Your task to perform on an android device: add a contact in the contacts app Image 0: 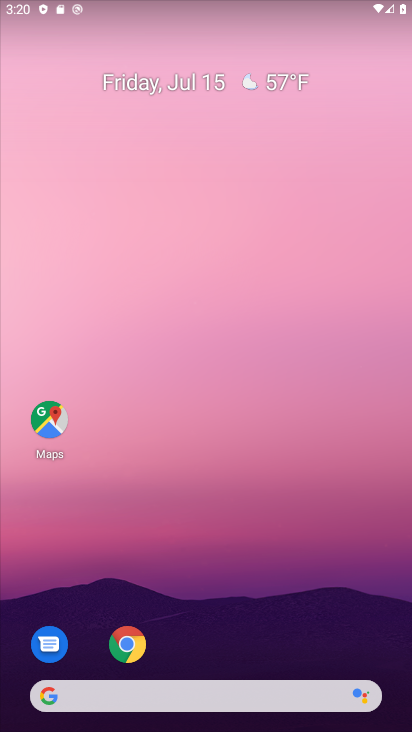
Step 0: drag from (193, 655) to (317, 190)
Your task to perform on an android device: add a contact in the contacts app Image 1: 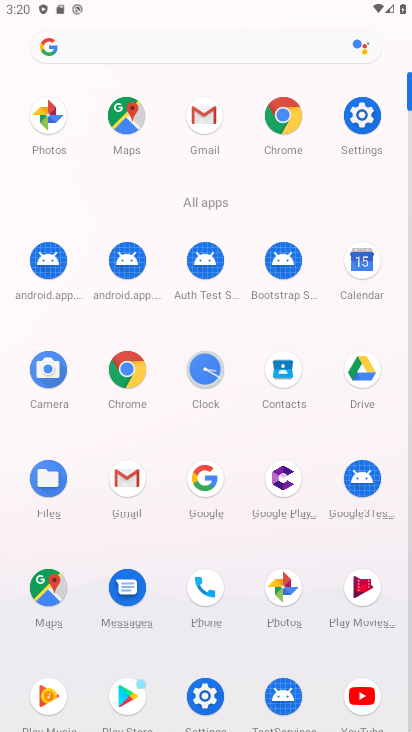
Step 1: click (278, 382)
Your task to perform on an android device: add a contact in the contacts app Image 2: 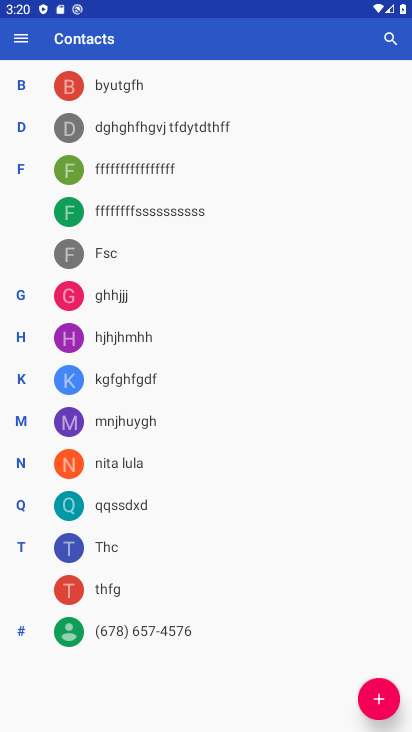
Step 2: click (372, 701)
Your task to perform on an android device: add a contact in the contacts app Image 3: 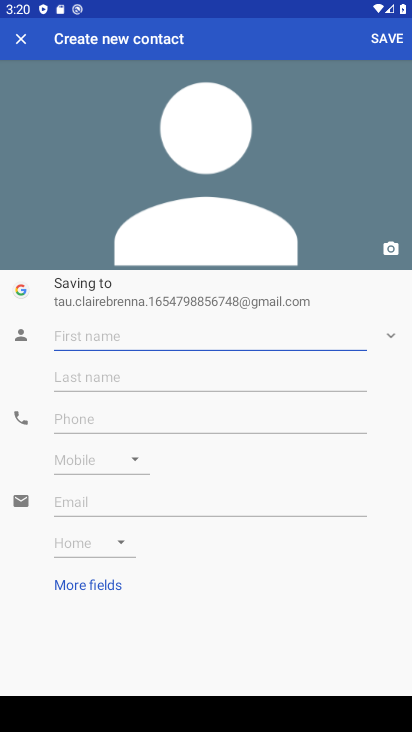
Step 3: type "ED"
Your task to perform on an android device: add a contact in the contacts app Image 4: 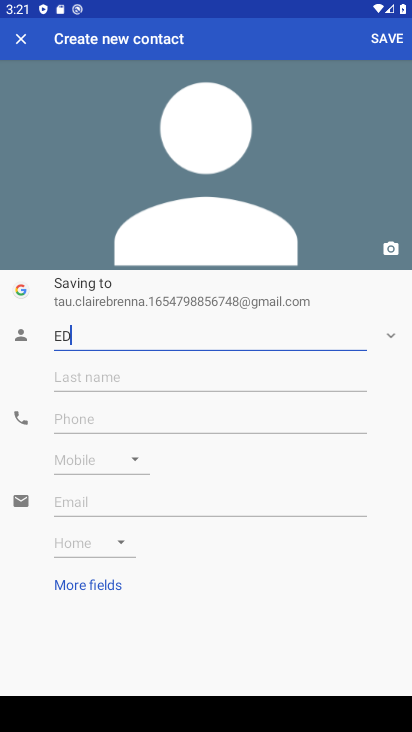
Step 4: click (96, 423)
Your task to perform on an android device: add a contact in the contacts app Image 5: 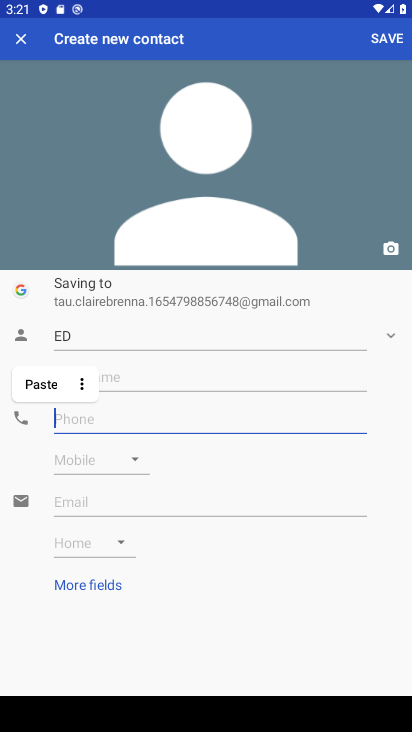
Step 5: type "5656565667"
Your task to perform on an android device: add a contact in the contacts app Image 6: 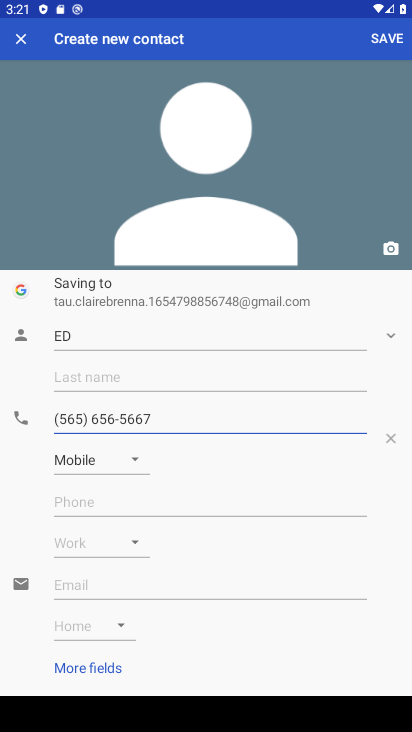
Step 6: click (379, 39)
Your task to perform on an android device: add a contact in the contacts app Image 7: 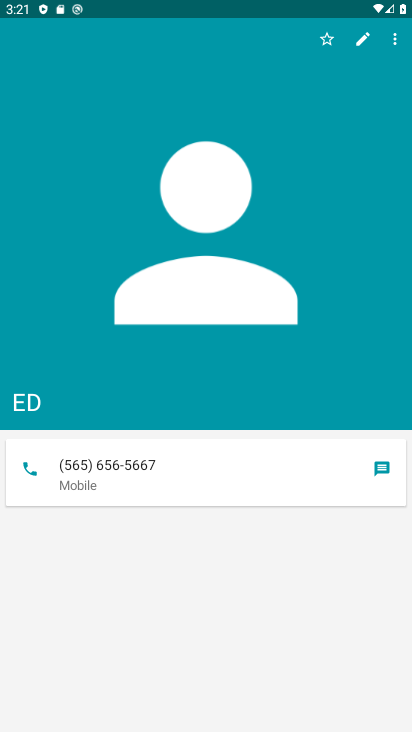
Step 7: task complete